Your task to perform on an android device: add a contact Image 0: 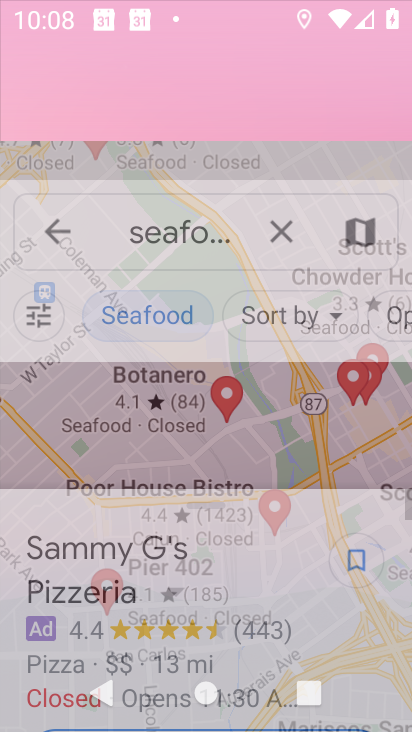
Step 0: drag from (262, 333) to (224, 81)
Your task to perform on an android device: add a contact Image 1: 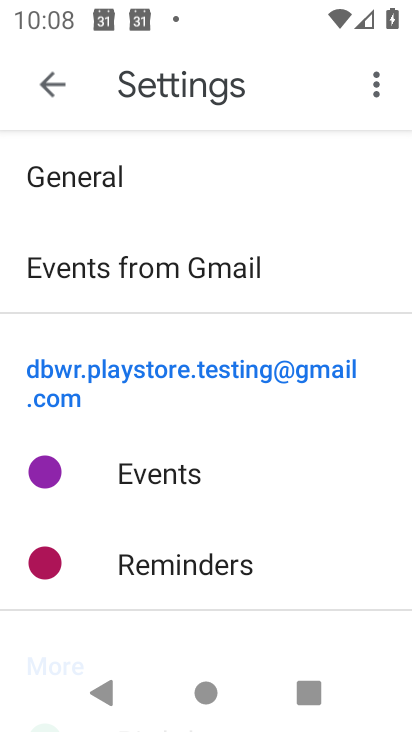
Step 1: click (41, 89)
Your task to perform on an android device: add a contact Image 2: 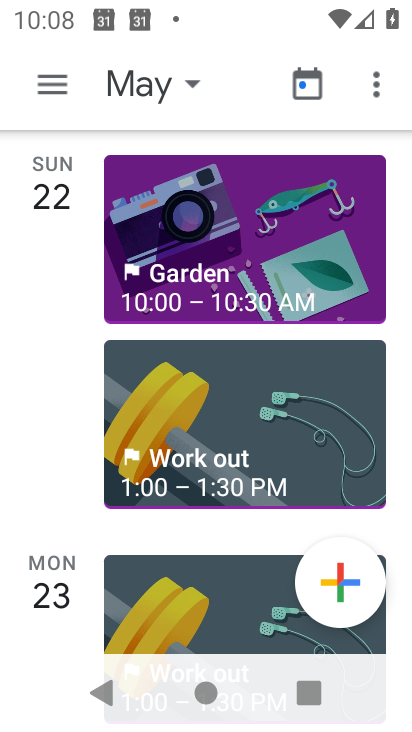
Step 2: press back button
Your task to perform on an android device: add a contact Image 3: 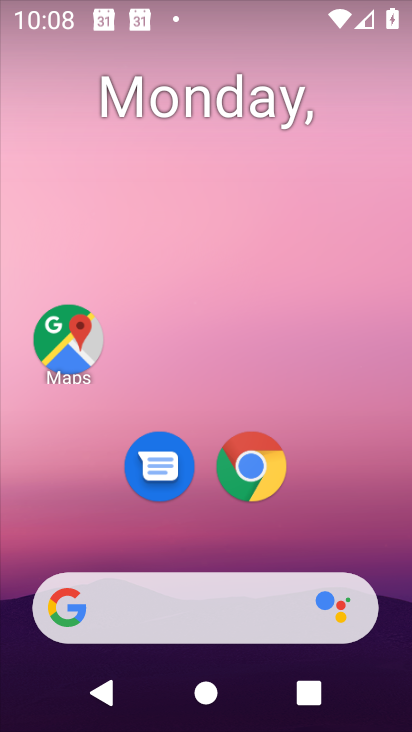
Step 3: drag from (364, 564) to (91, 166)
Your task to perform on an android device: add a contact Image 4: 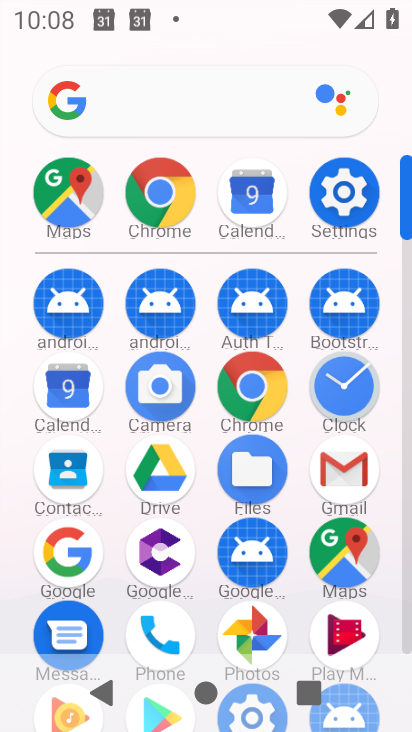
Step 4: click (63, 466)
Your task to perform on an android device: add a contact Image 5: 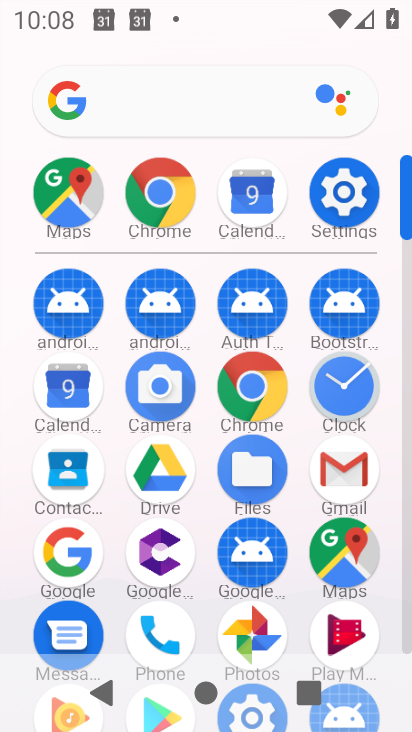
Step 5: click (63, 466)
Your task to perform on an android device: add a contact Image 6: 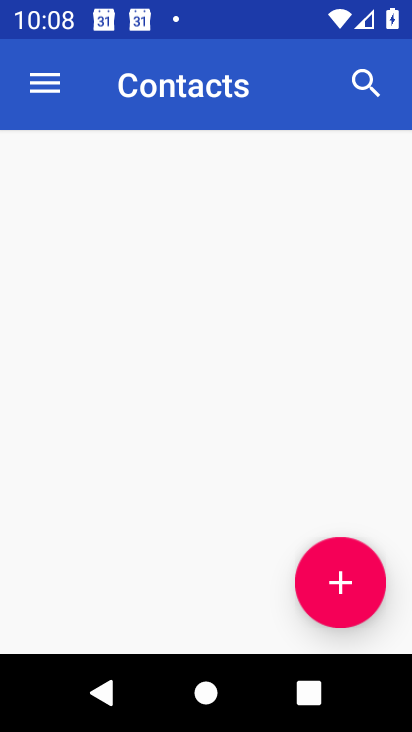
Step 6: click (67, 457)
Your task to perform on an android device: add a contact Image 7: 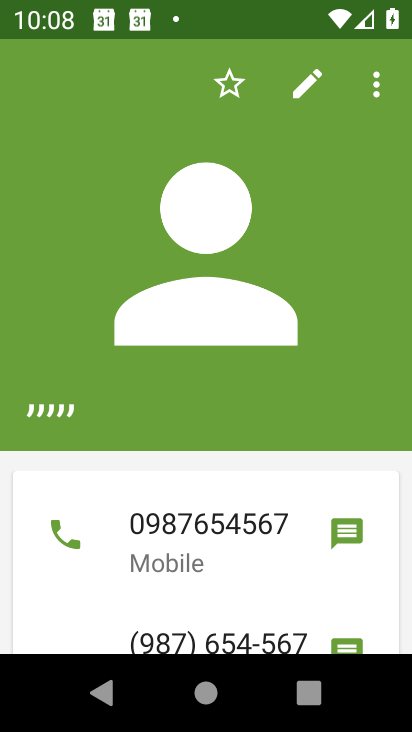
Step 7: press back button
Your task to perform on an android device: add a contact Image 8: 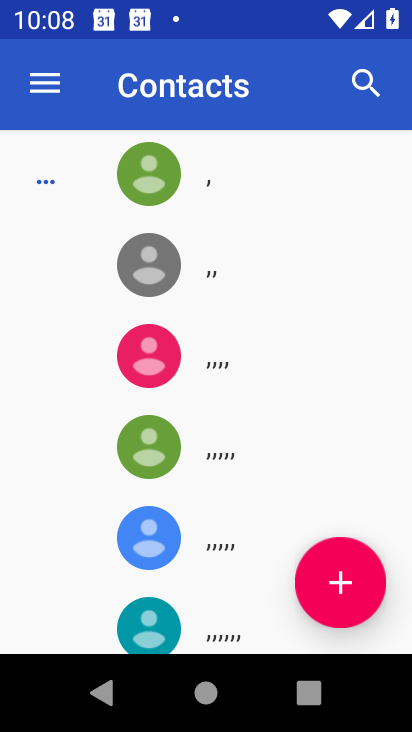
Step 8: click (352, 588)
Your task to perform on an android device: add a contact Image 9: 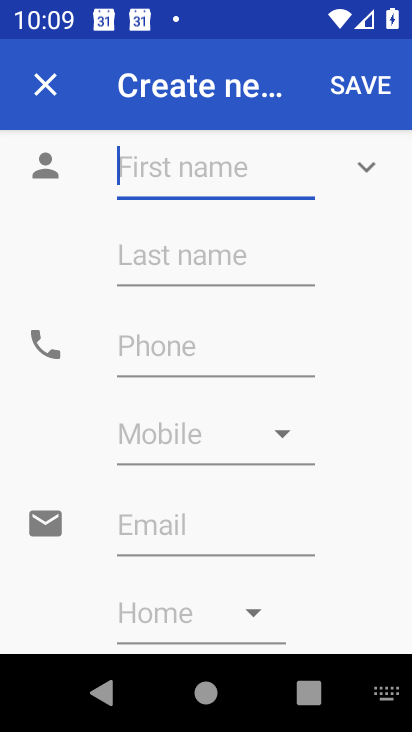
Step 9: type "meenuk"
Your task to perform on an android device: add a contact Image 10: 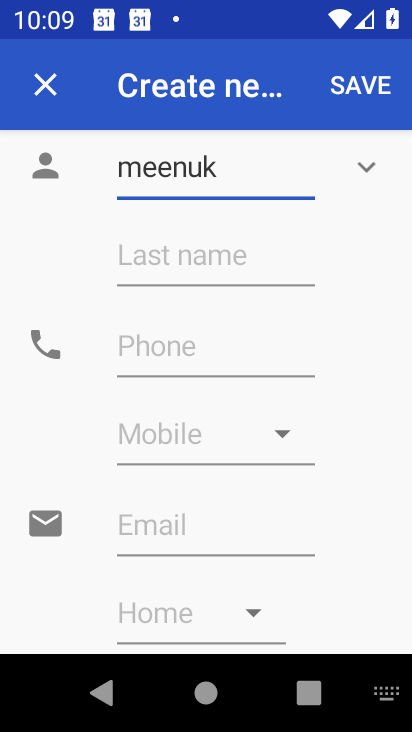
Step 10: click (130, 358)
Your task to perform on an android device: add a contact Image 11: 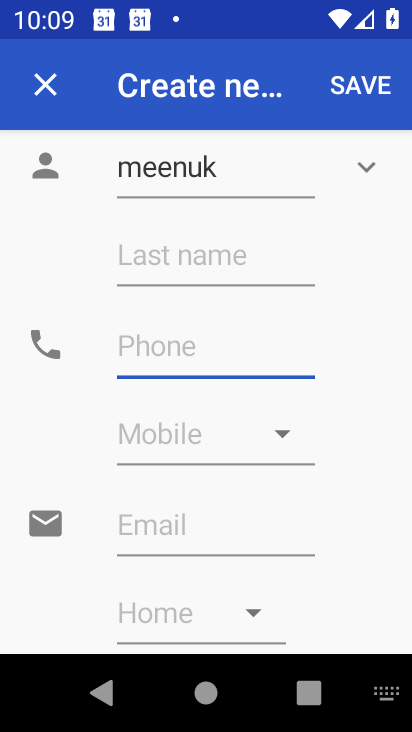
Step 11: click (131, 356)
Your task to perform on an android device: add a contact Image 12: 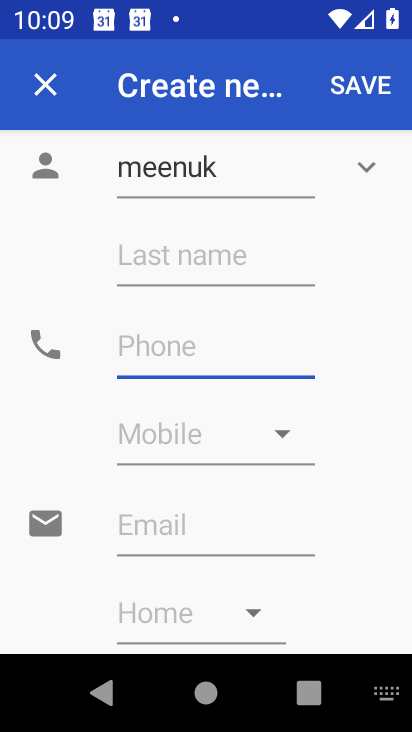
Step 12: click (131, 356)
Your task to perform on an android device: add a contact Image 13: 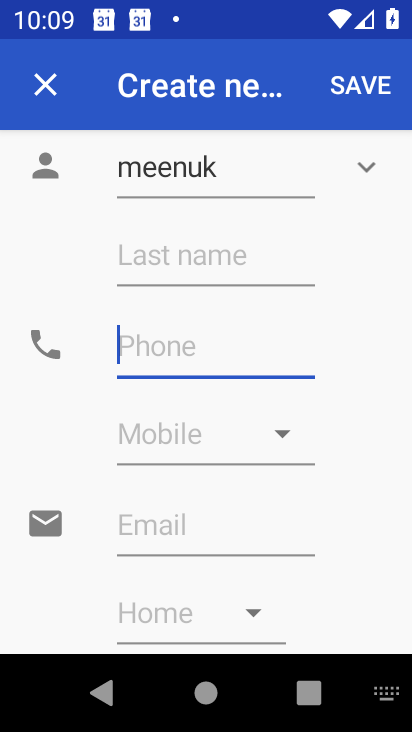
Step 13: type "96786577675"
Your task to perform on an android device: add a contact Image 14: 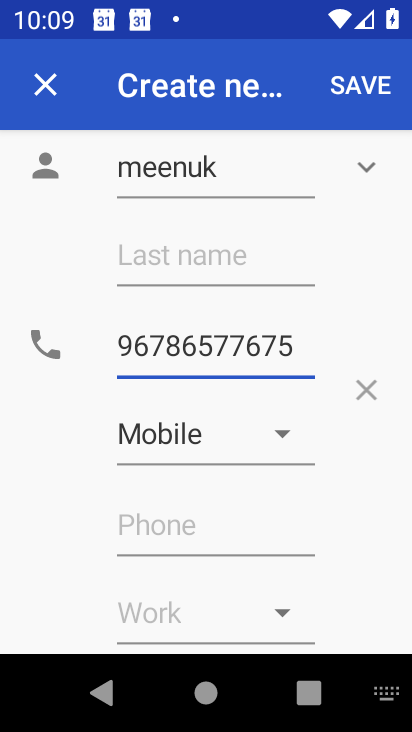
Step 14: click (376, 83)
Your task to perform on an android device: add a contact Image 15: 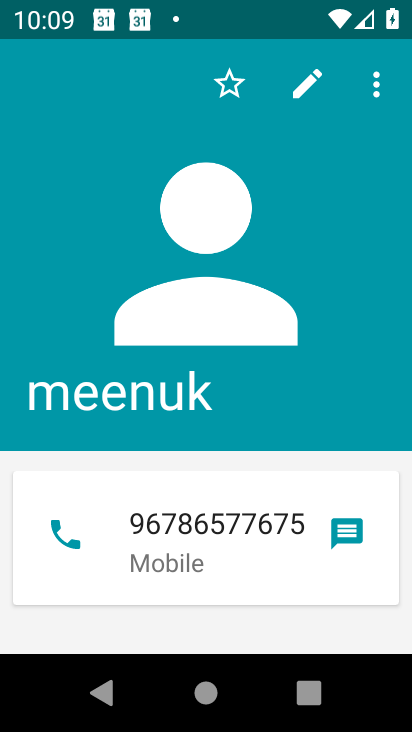
Step 15: task complete